Your task to perform on an android device: Turn on the flashlight Image 0: 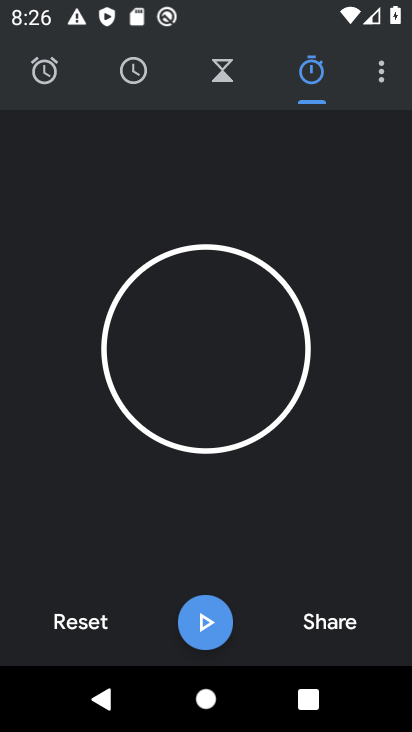
Step 0: press home button
Your task to perform on an android device: Turn on the flashlight Image 1: 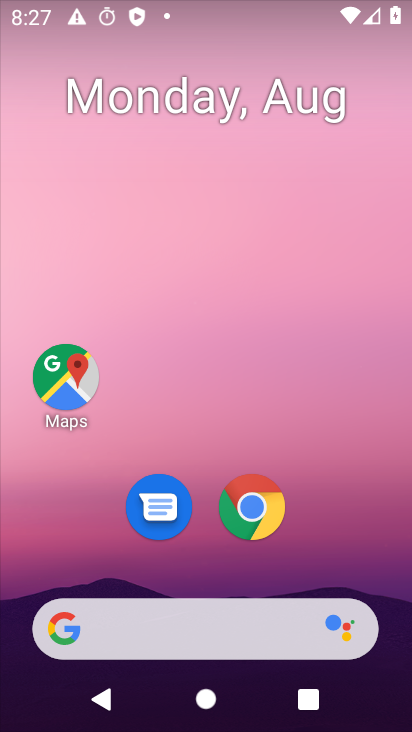
Step 1: task complete